Your task to perform on an android device: Go to CNN.com Image 0: 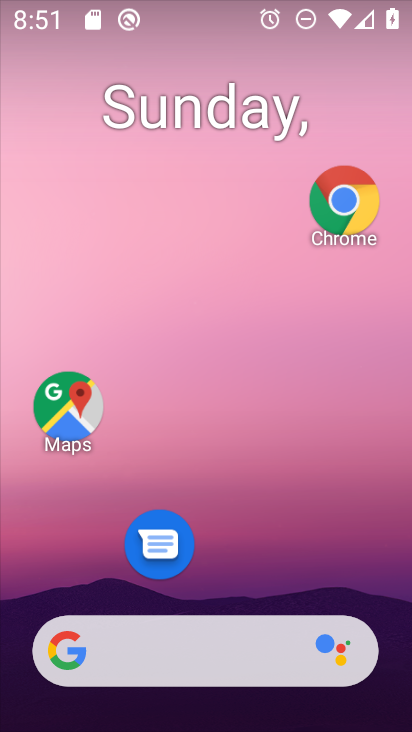
Step 0: click (348, 202)
Your task to perform on an android device: Go to CNN.com Image 1: 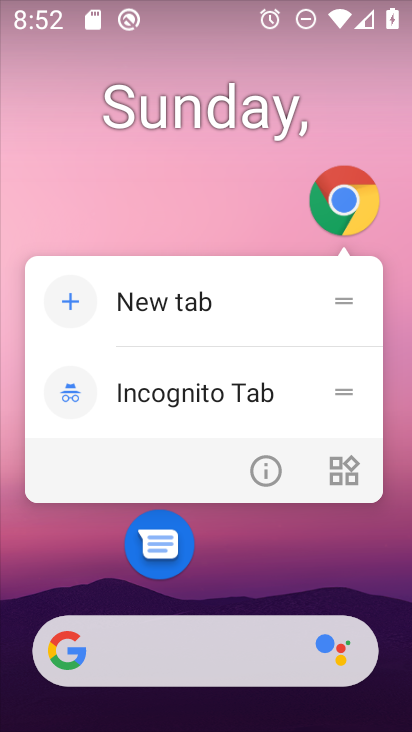
Step 1: click (348, 202)
Your task to perform on an android device: Go to CNN.com Image 2: 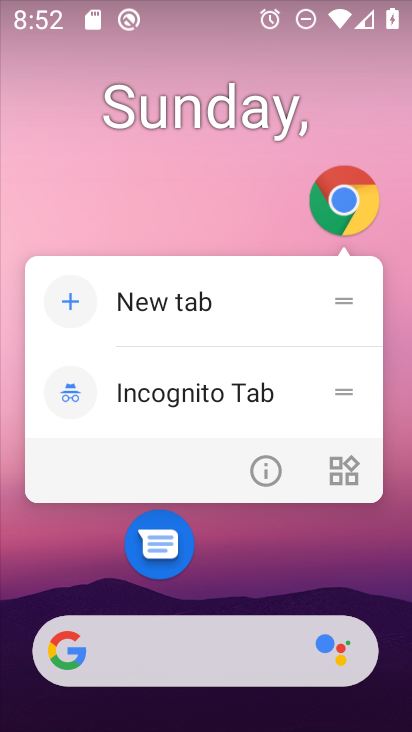
Step 2: click (363, 216)
Your task to perform on an android device: Go to CNN.com Image 3: 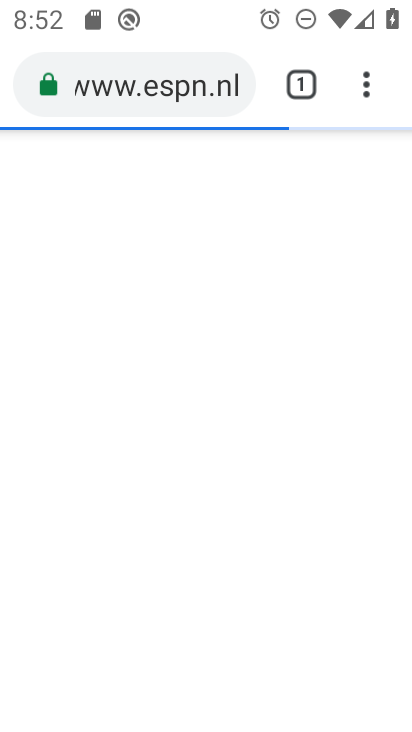
Step 3: click (136, 95)
Your task to perform on an android device: Go to CNN.com Image 4: 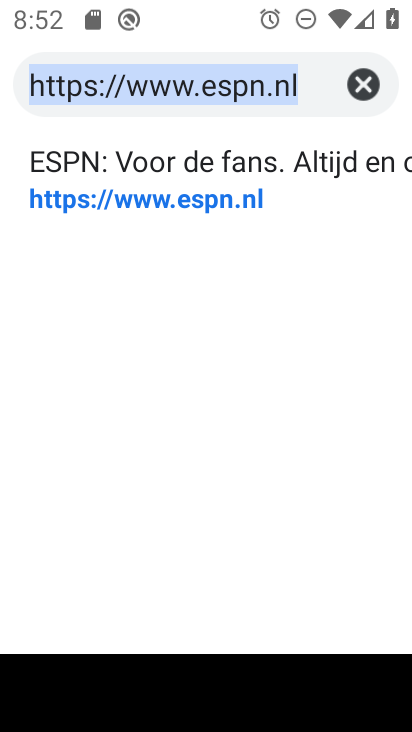
Step 4: type "CNN.com"
Your task to perform on an android device: Go to CNN.com Image 5: 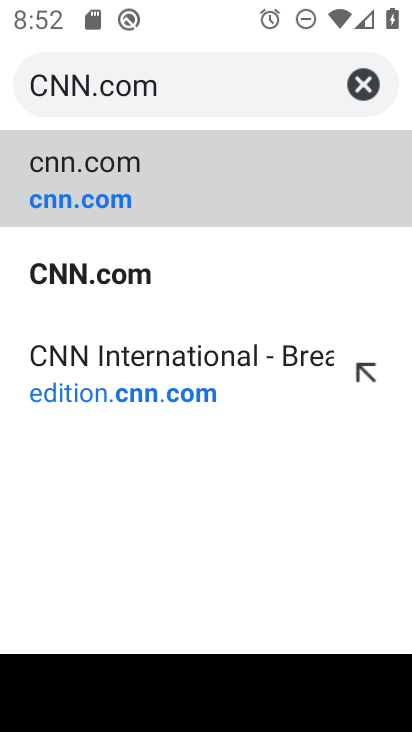
Step 5: click (154, 170)
Your task to perform on an android device: Go to CNN.com Image 6: 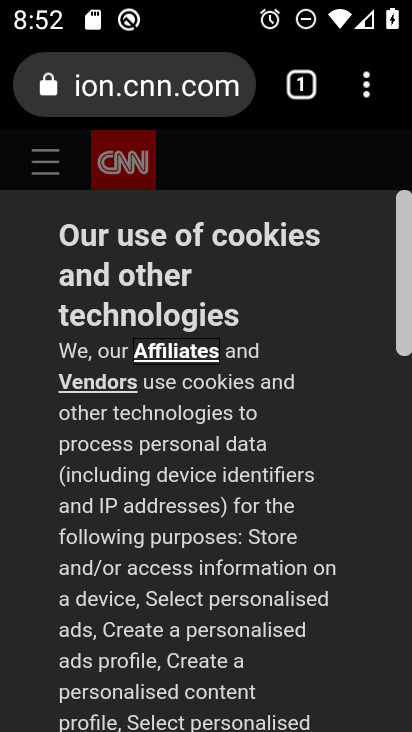
Step 6: task complete